Your task to perform on an android device: turn smart compose on in the gmail app Image 0: 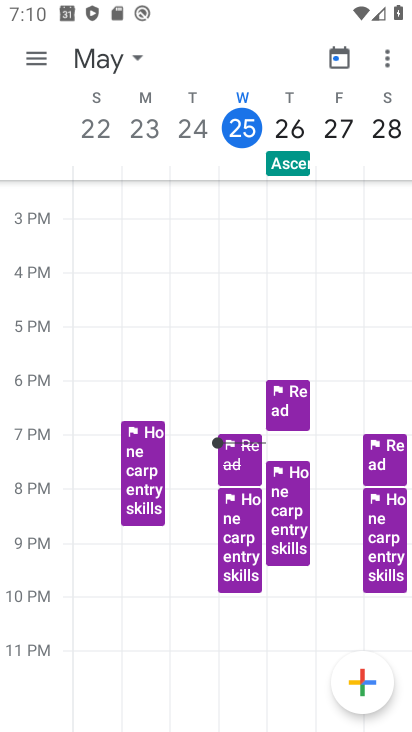
Step 0: press back button
Your task to perform on an android device: turn smart compose on in the gmail app Image 1: 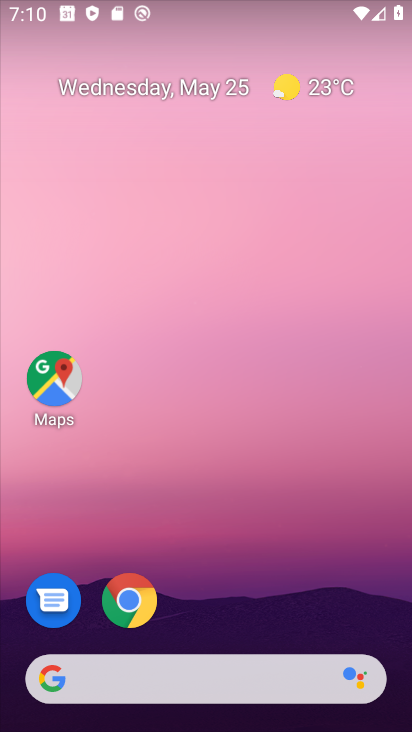
Step 1: drag from (242, 613) to (203, 136)
Your task to perform on an android device: turn smart compose on in the gmail app Image 2: 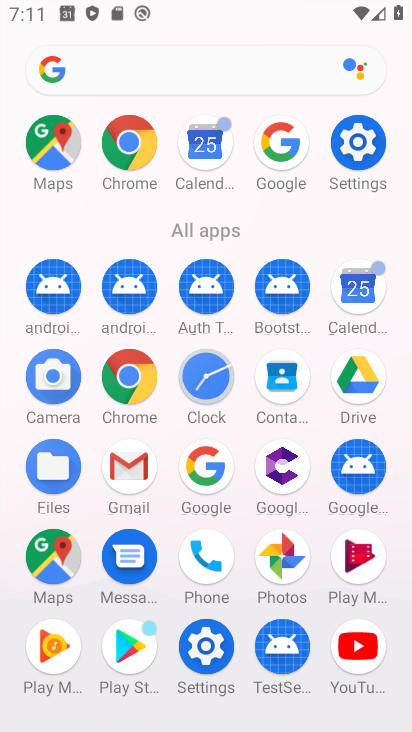
Step 2: click (131, 464)
Your task to perform on an android device: turn smart compose on in the gmail app Image 3: 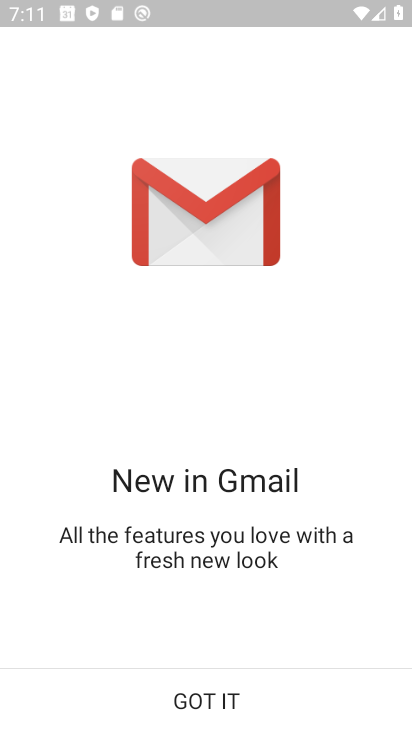
Step 3: click (208, 703)
Your task to perform on an android device: turn smart compose on in the gmail app Image 4: 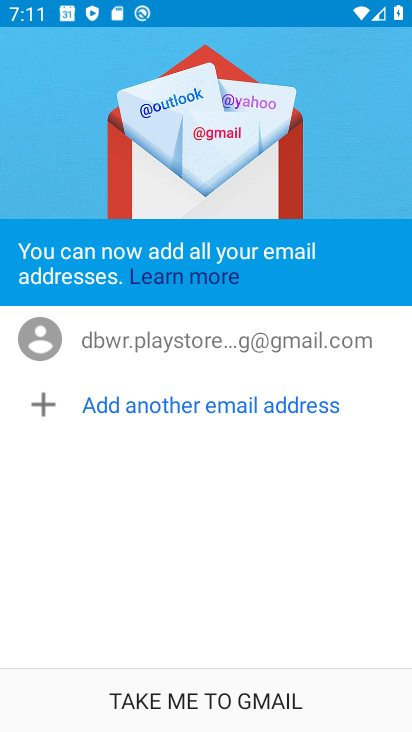
Step 4: click (208, 703)
Your task to perform on an android device: turn smart compose on in the gmail app Image 5: 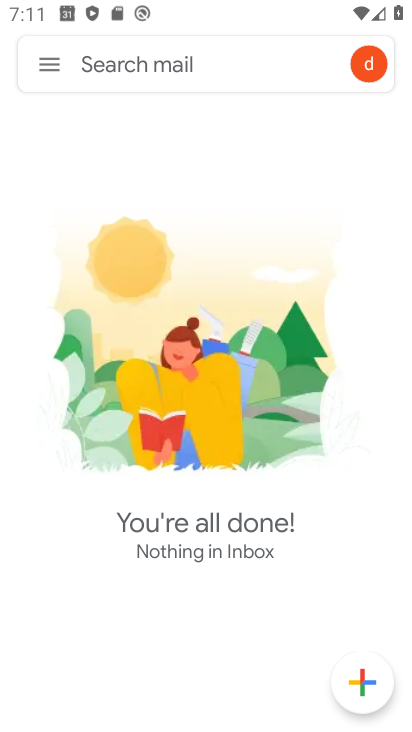
Step 5: click (46, 63)
Your task to perform on an android device: turn smart compose on in the gmail app Image 6: 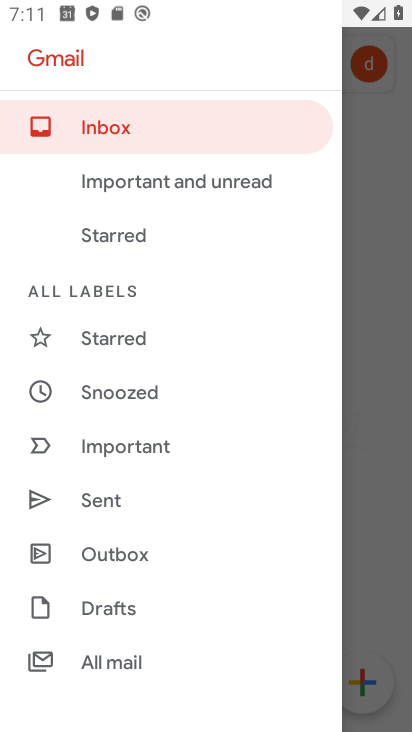
Step 6: drag from (126, 568) to (158, 482)
Your task to perform on an android device: turn smart compose on in the gmail app Image 7: 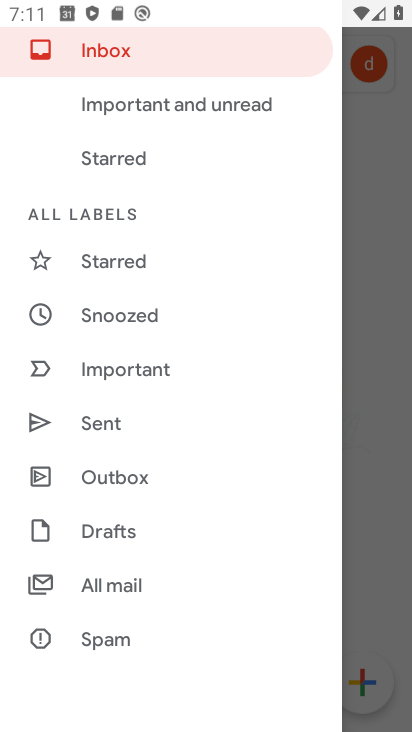
Step 7: drag from (104, 562) to (142, 473)
Your task to perform on an android device: turn smart compose on in the gmail app Image 8: 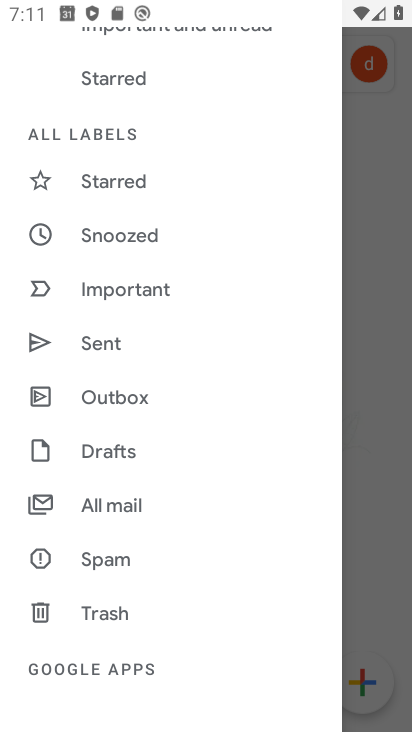
Step 8: drag from (102, 536) to (165, 451)
Your task to perform on an android device: turn smart compose on in the gmail app Image 9: 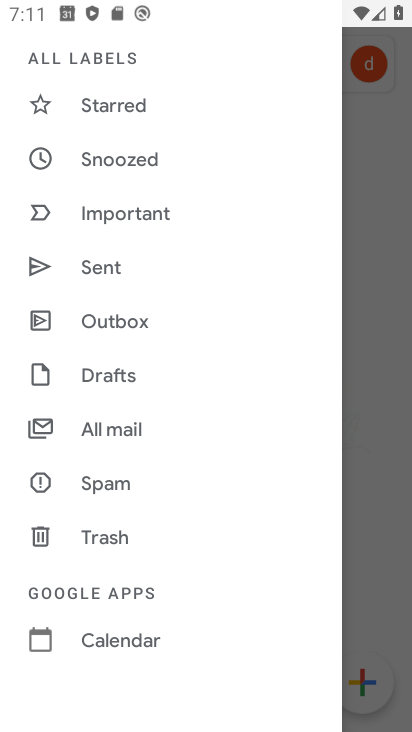
Step 9: drag from (103, 564) to (154, 470)
Your task to perform on an android device: turn smart compose on in the gmail app Image 10: 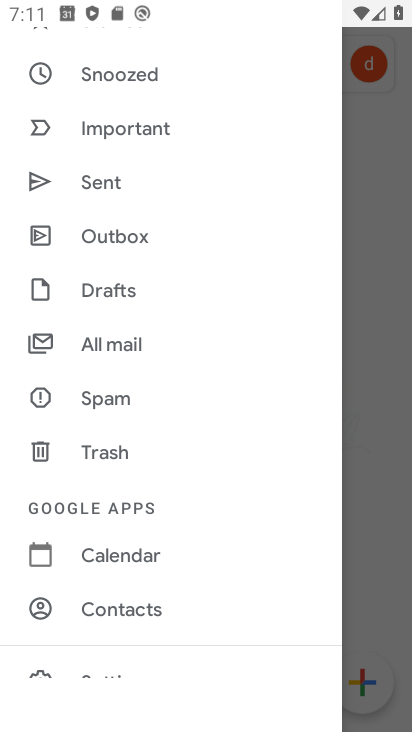
Step 10: drag from (97, 583) to (177, 455)
Your task to perform on an android device: turn smart compose on in the gmail app Image 11: 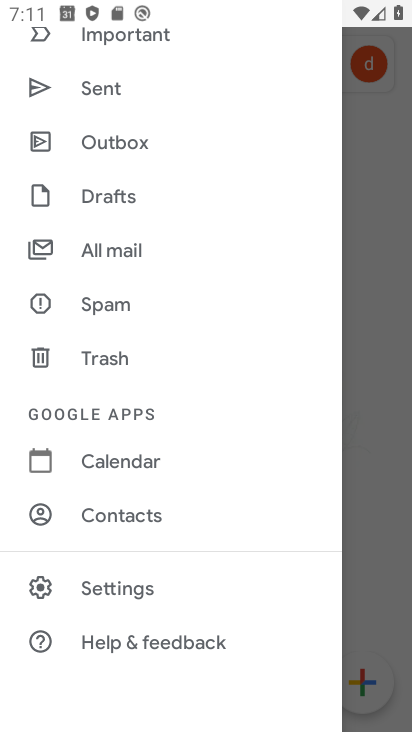
Step 11: click (115, 592)
Your task to perform on an android device: turn smart compose on in the gmail app Image 12: 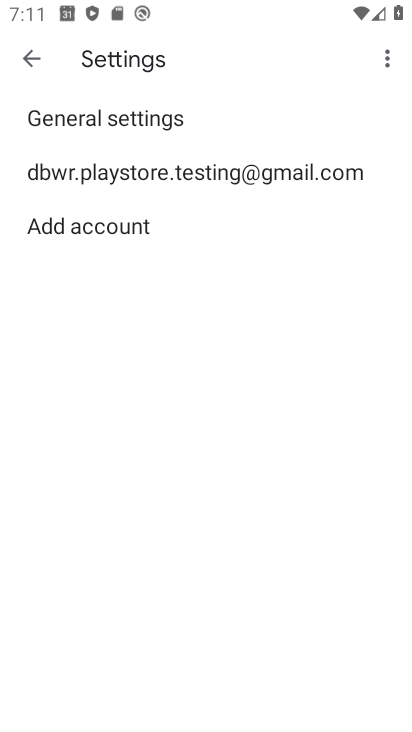
Step 12: click (166, 169)
Your task to perform on an android device: turn smart compose on in the gmail app Image 13: 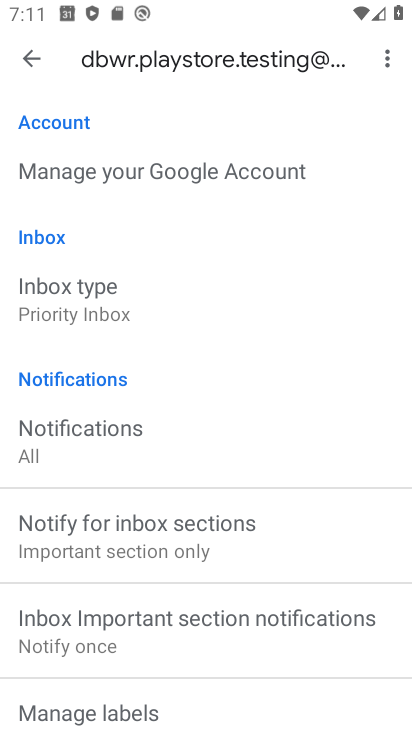
Step 13: task complete